Your task to perform on an android device: Go to Reddit.com Image 0: 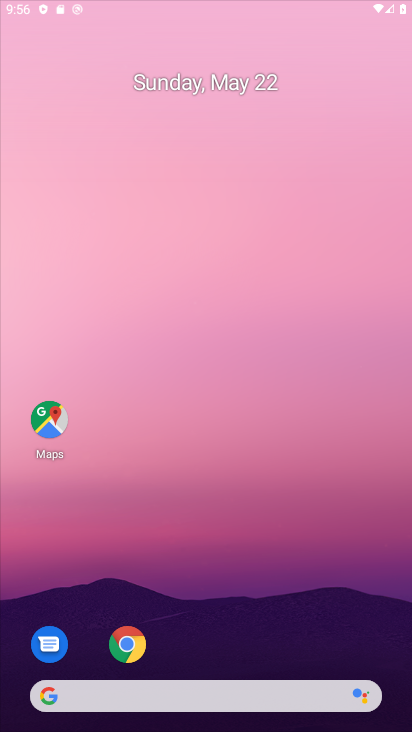
Step 0: press home button
Your task to perform on an android device: Go to Reddit.com Image 1: 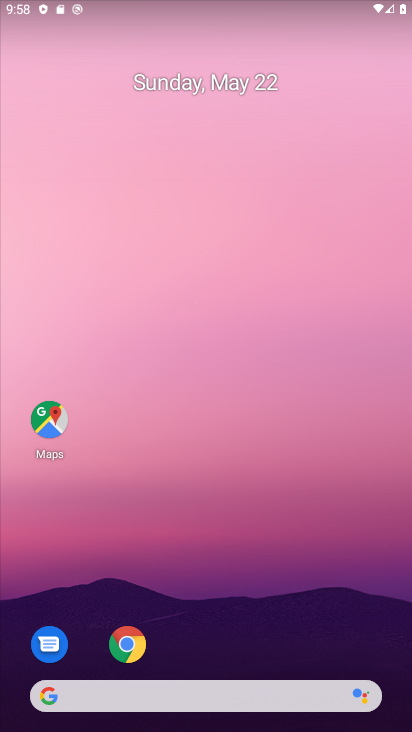
Step 1: drag from (199, 450) to (199, 235)
Your task to perform on an android device: Go to Reddit.com Image 2: 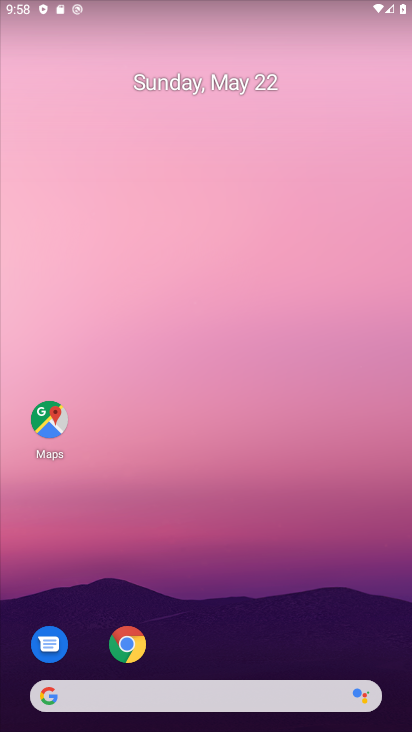
Step 2: drag from (214, 563) to (244, 259)
Your task to perform on an android device: Go to Reddit.com Image 3: 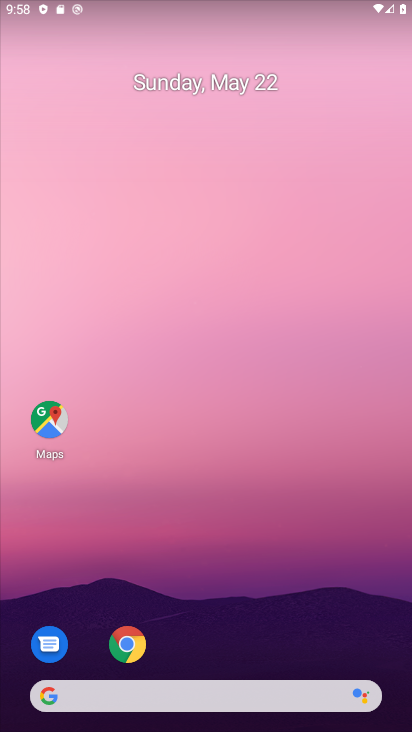
Step 3: drag from (223, 680) to (263, 267)
Your task to perform on an android device: Go to Reddit.com Image 4: 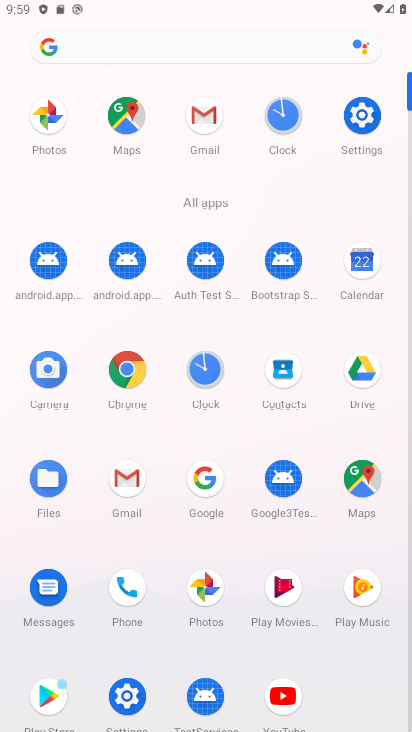
Step 4: click (207, 470)
Your task to perform on an android device: Go to Reddit.com Image 5: 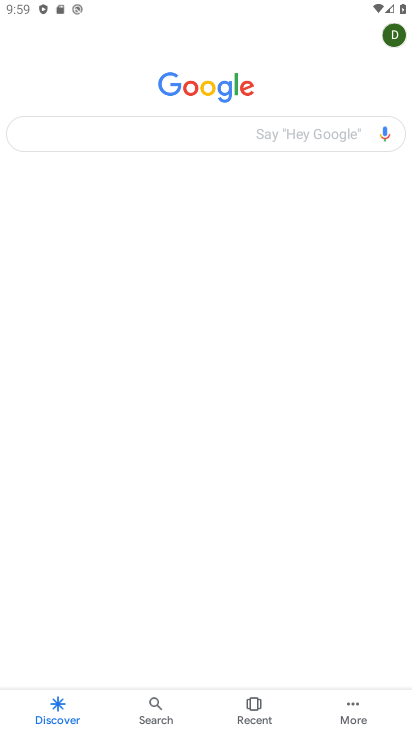
Step 5: click (106, 136)
Your task to perform on an android device: Go to Reddit.com Image 6: 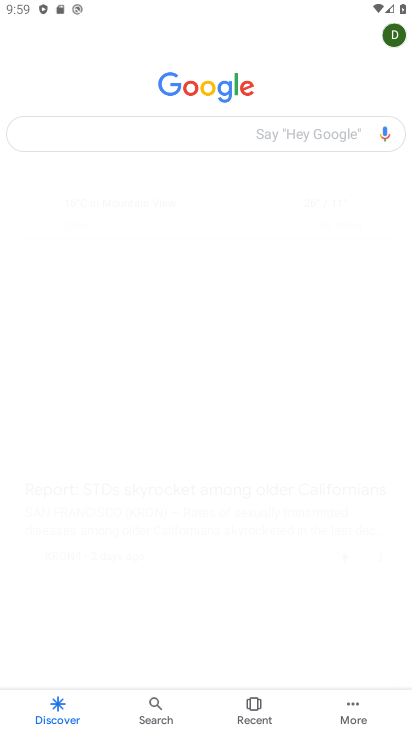
Step 6: click (161, 131)
Your task to perform on an android device: Go to Reddit.com Image 7: 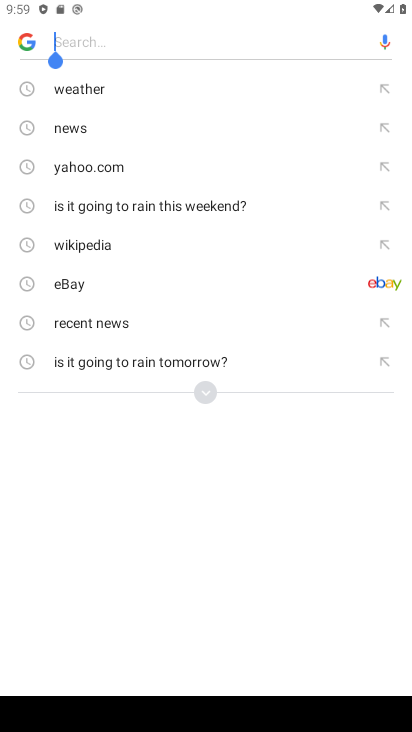
Step 7: click (209, 389)
Your task to perform on an android device: Go to Reddit.com Image 8: 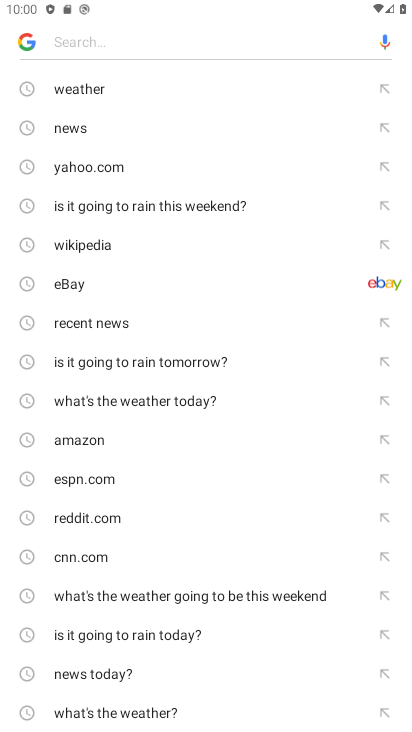
Step 8: drag from (140, 689) to (162, 500)
Your task to perform on an android device: Go to Reddit.com Image 9: 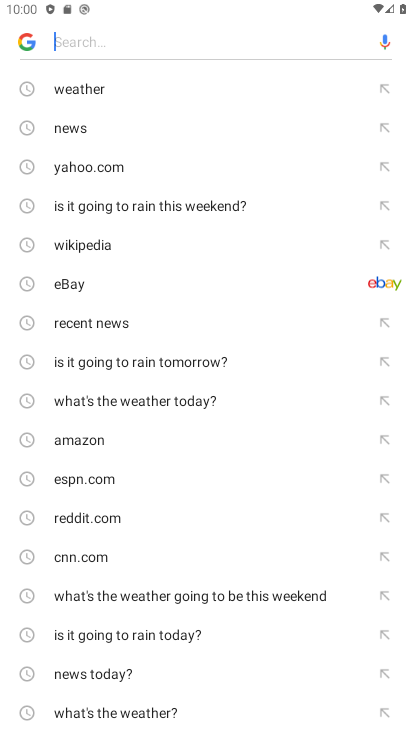
Step 9: click (88, 511)
Your task to perform on an android device: Go to Reddit.com Image 10: 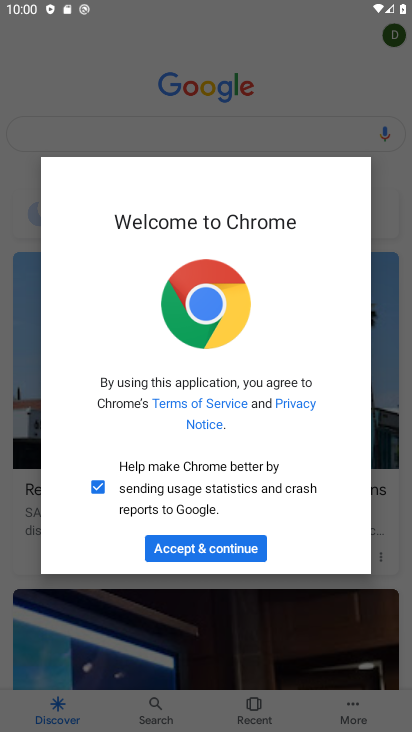
Step 10: click (182, 559)
Your task to perform on an android device: Go to Reddit.com Image 11: 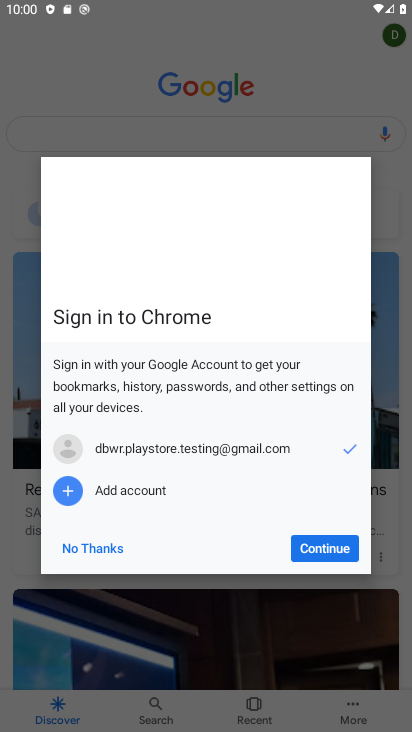
Step 11: click (353, 549)
Your task to perform on an android device: Go to Reddit.com Image 12: 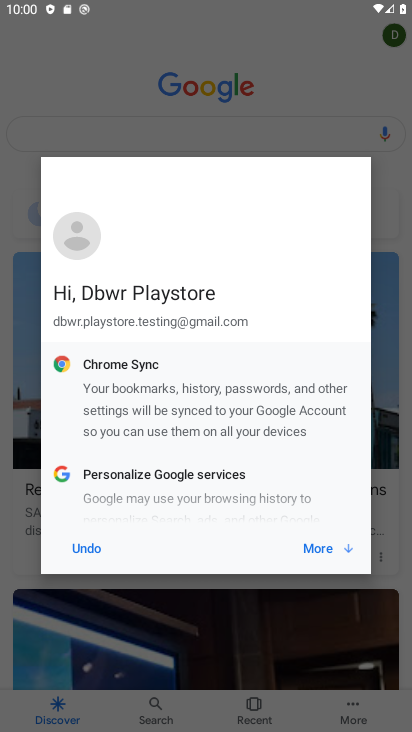
Step 12: click (320, 550)
Your task to perform on an android device: Go to Reddit.com Image 13: 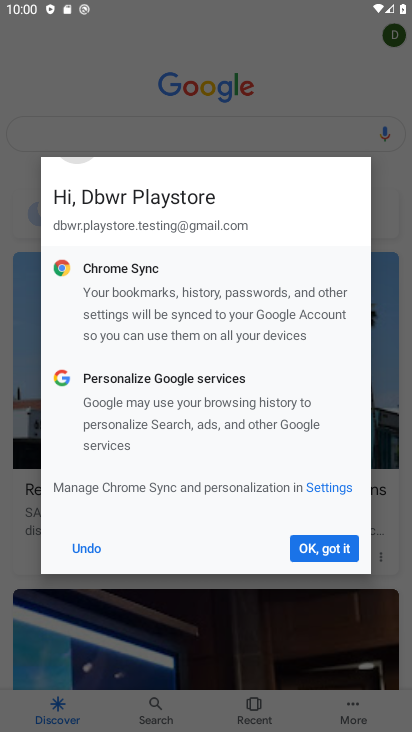
Step 13: click (320, 550)
Your task to perform on an android device: Go to Reddit.com Image 14: 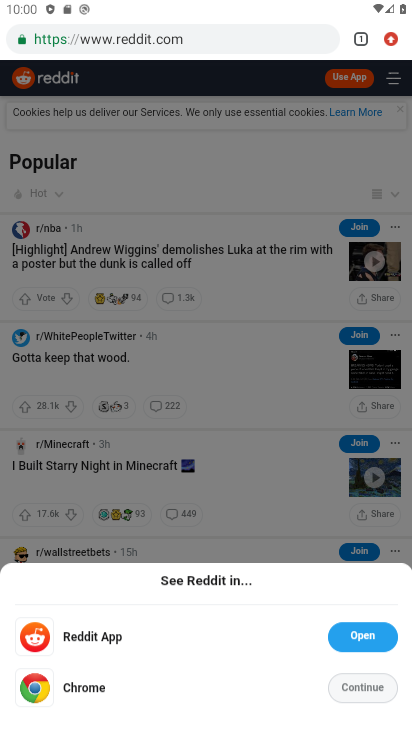
Step 14: task complete